Your task to perform on an android device: Find coffee shops on Maps Image 0: 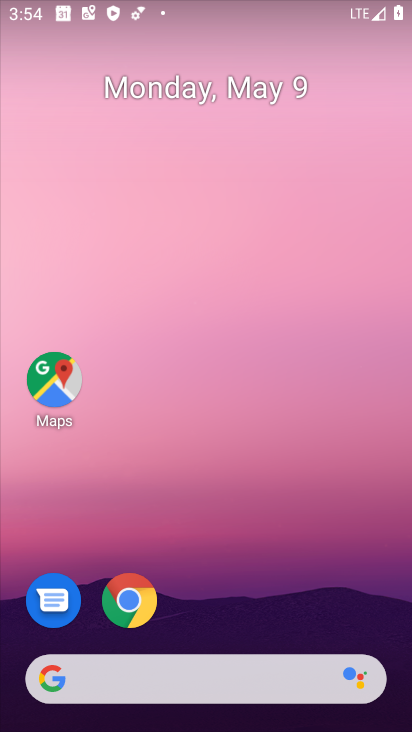
Step 0: drag from (237, 683) to (289, 8)
Your task to perform on an android device: Find coffee shops on Maps Image 1: 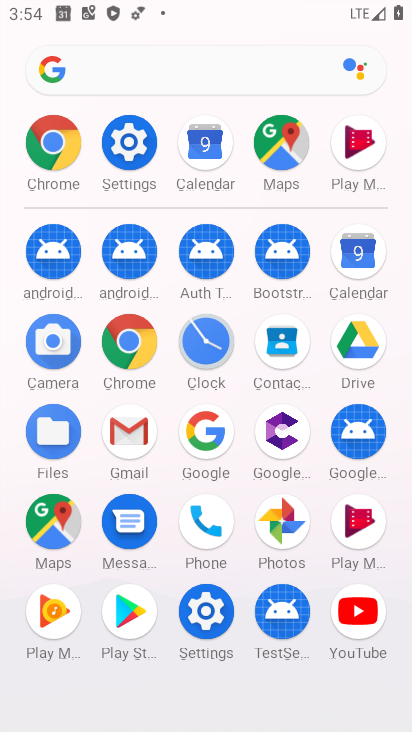
Step 1: click (274, 136)
Your task to perform on an android device: Find coffee shops on Maps Image 2: 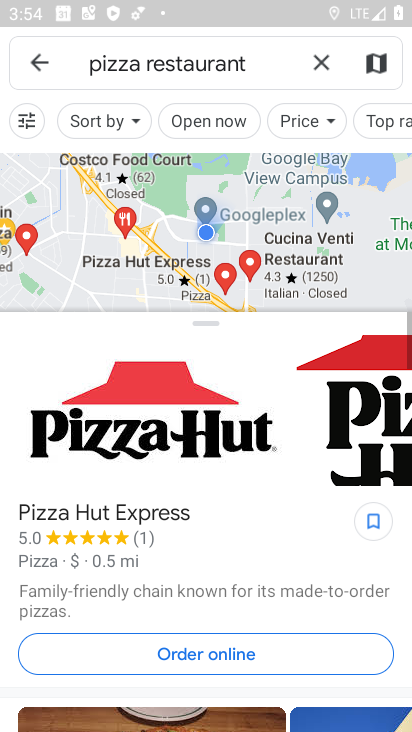
Step 2: click (324, 57)
Your task to perform on an android device: Find coffee shops on Maps Image 3: 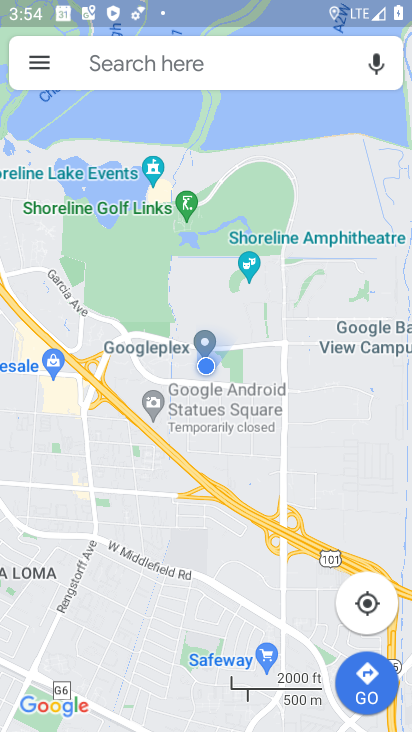
Step 3: click (274, 60)
Your task to perform on an android device: Find coffee shops on Maps Image 4: 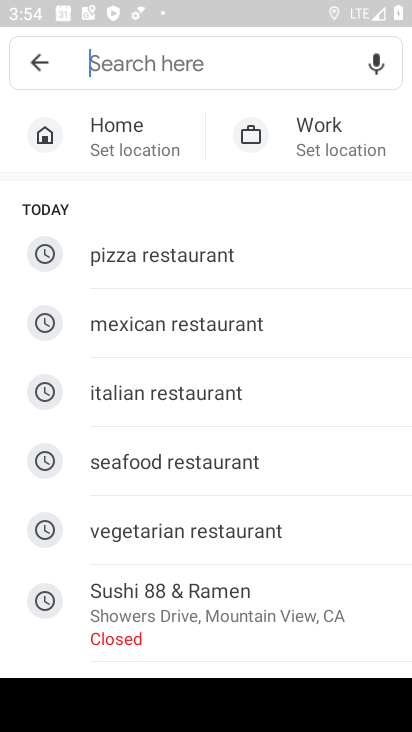
Step 4: type "coffee shops"
Your task to perform on an android device: Find coffee shops on Maps Image 5: 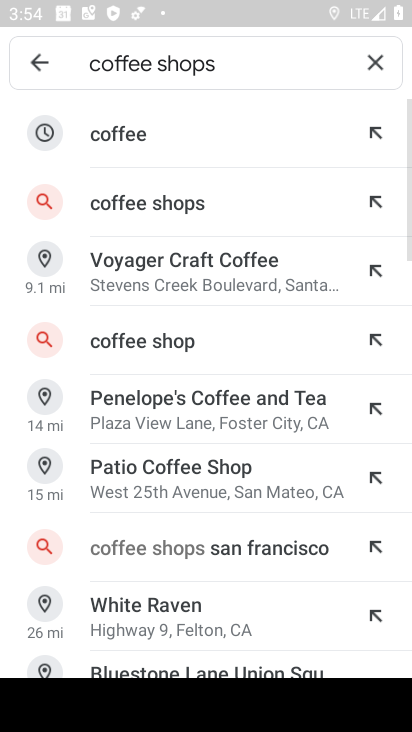
Step 5: click (246, 207)
Your task to perform on an android device: Find coffee shops on Maps Image 6: 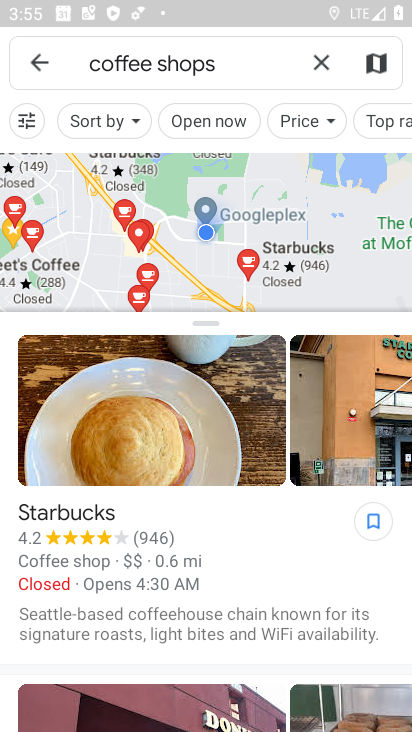
Step 6: task complete